Your task to perform on an android device: Open sound settings Image 0: 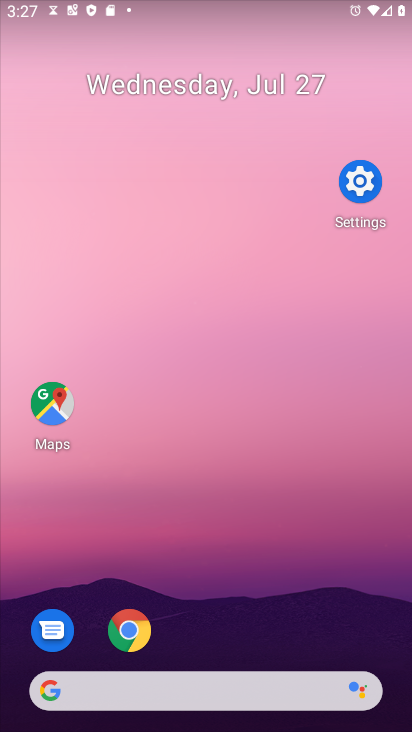
Step 0: press home button
Your task to perform on an android device: Open sound settings Image 1: 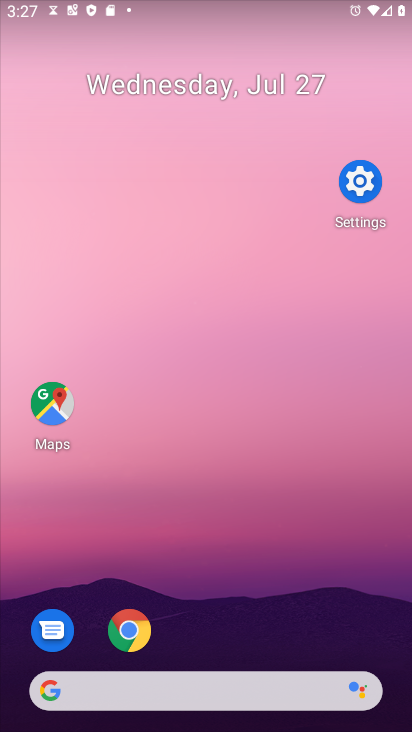
Step 1: drag from (238, 619) to (169, 36)
Your task to perform on an android device: Open sound settings Image 2: 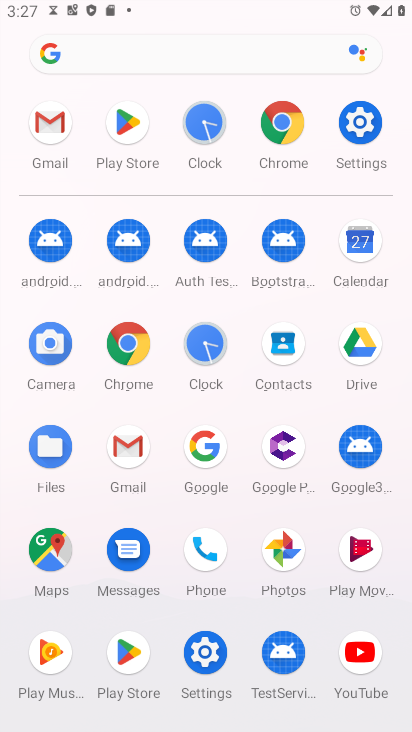
Step 2: click (361, 124)
Your task to perform on an android device: Open sound settings Image 3: 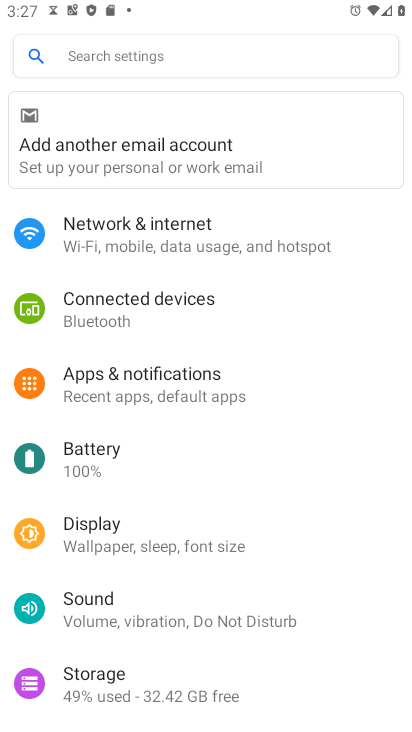
Step 3: click (107, 611)
Your task to perform on an android device: Open sound settings Image 4: 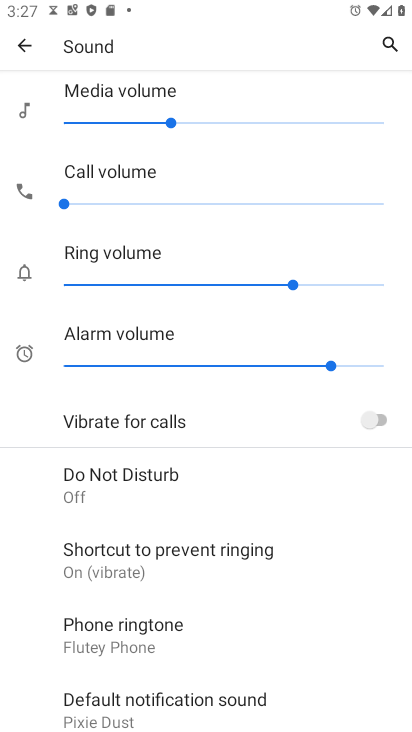
Step 4: task complete